Your task to perform on an android device: show emergency info Image 0: 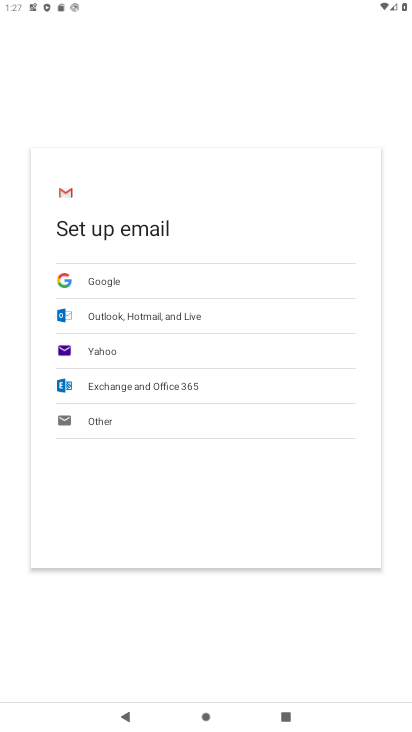
Step 0: press home button
Your task to perform on an android device: show emergency info Image 1: 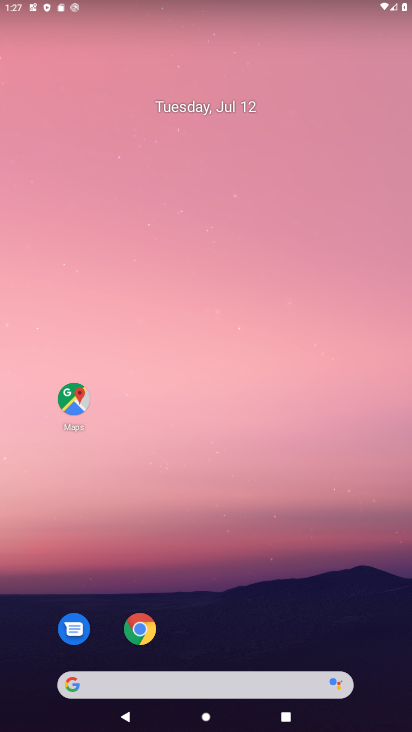
Step 1: click (194, 635)
Your task to perform on an android device: show emergency info Image 2: 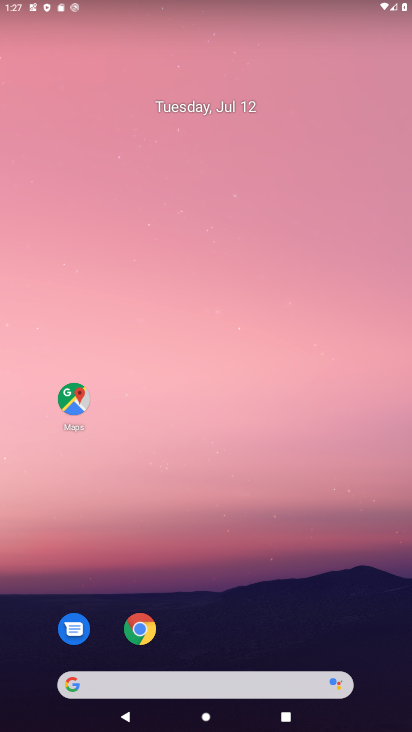
Step 2: drag from (180, 56) to (161, 28)
Your task to perform on an android device: show emergency info Image 3: 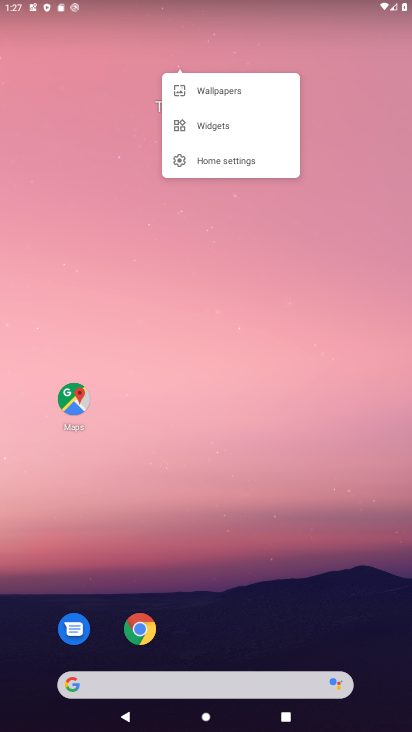
Step 3: click (203, 622)
Your task to perform on an android device: show emergency info Image 4: 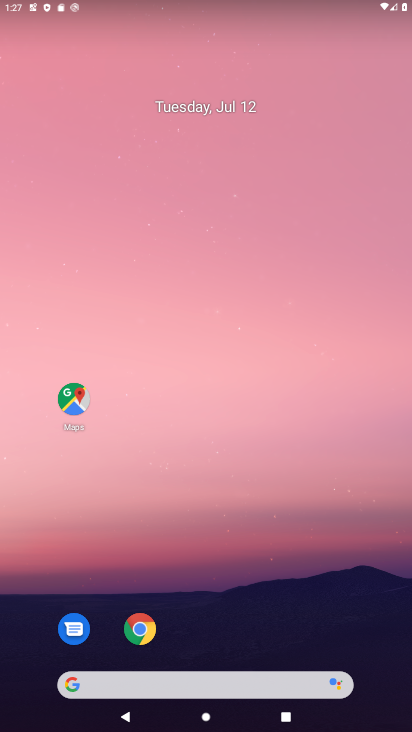
Step 4: drag from (203, 612) to (148, 16)
Your task to perform on an android device: show emergency info Image 5: 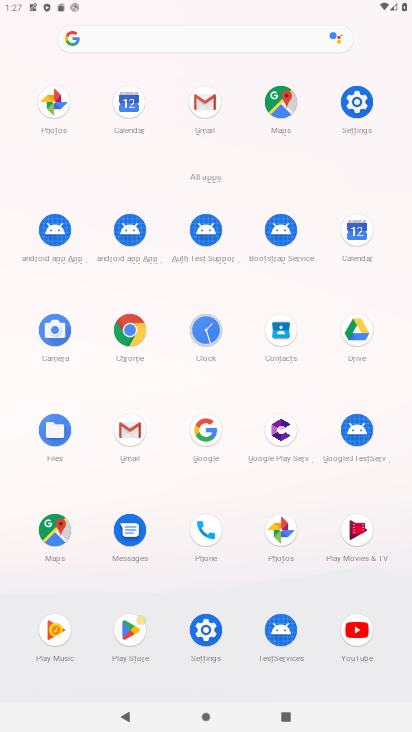
Step 5: click (349, 108)
Your task to perform on an android device: show emergency info Image 6: 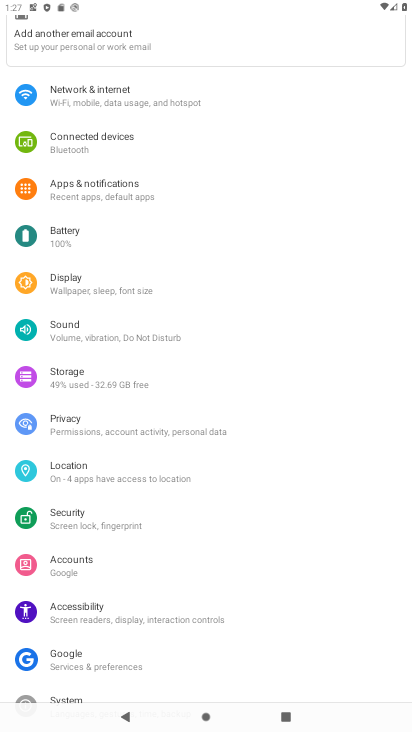
Step 6: drag from (197, 291) to (203, 242)
Your task to perform on an android device: show emergency info Image 7: 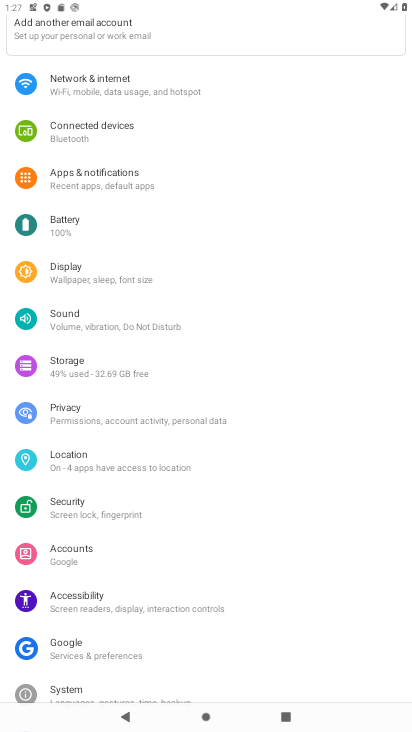
Step 7: drag from (210, 436) to (217, 298)
Your task to perform on an android device: show emergency info Image 8: 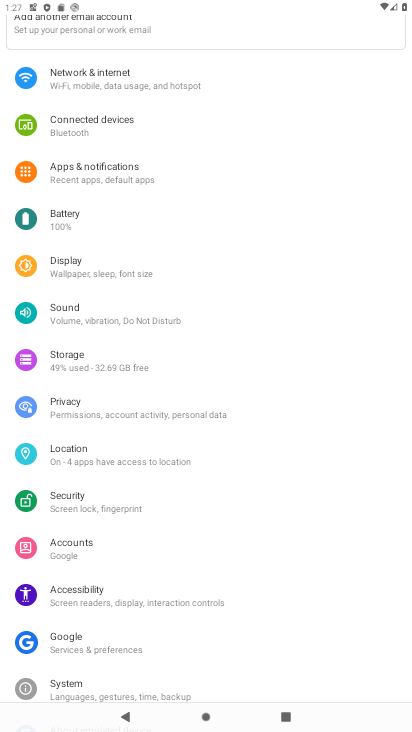
Step 8: click (168, 408)
Your task to perform on an android device: show emergency info Image 9: 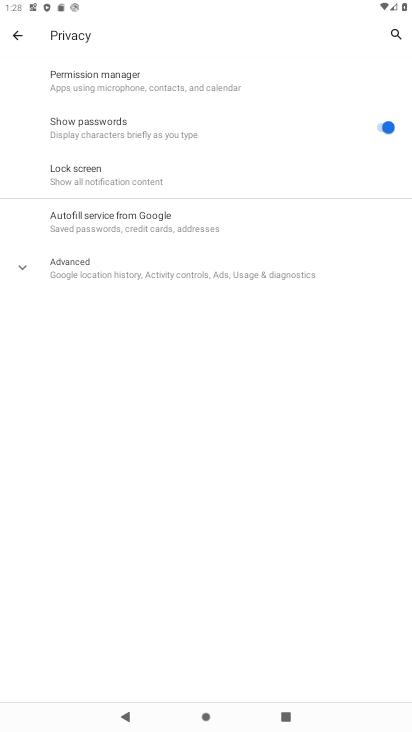
Step 9: click (17, 41)
Your task to perform on an android device: show emergency info Image 10: 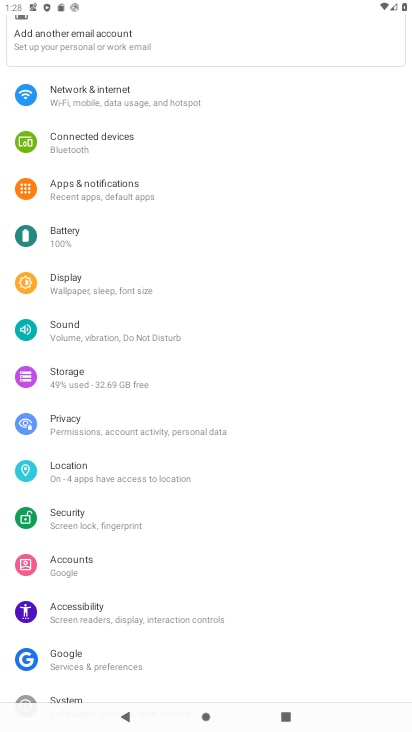
Step 10: drag from (286, 526) to (282, 287)
Your task to perform on an android device: show emergency info Image 11: 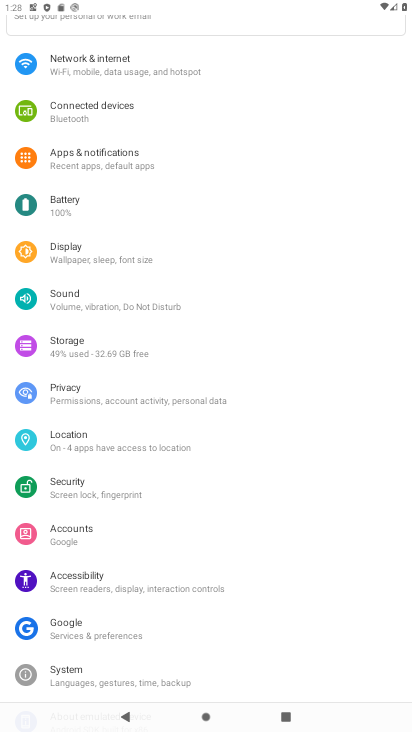
Step 11: drag from (174, 590) to (135, 210)
Your task to perform on an android device: show emergency info Image 12: 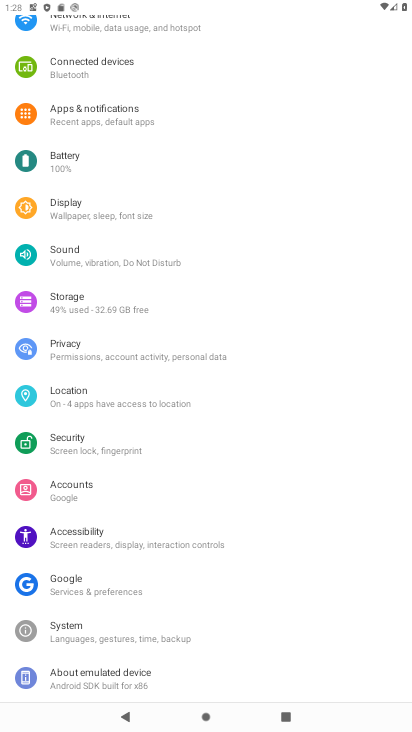
Step 12: click (66, 682)
Your task to perform on an android device: show emergency info Image 13: 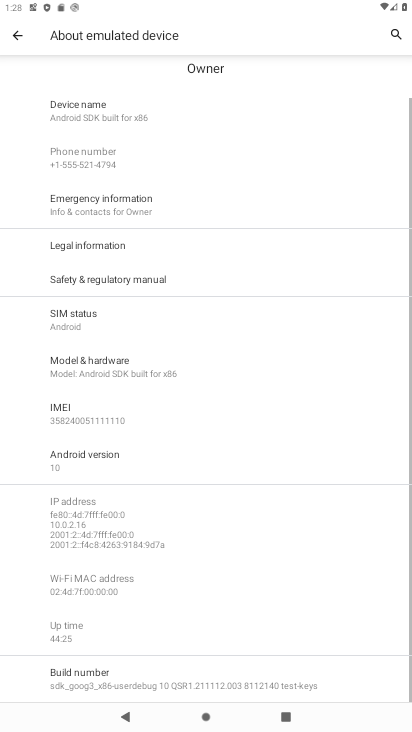
Step 13: task complete